Your task to perform on an android device: open a new tab in the chrome app Image 0: 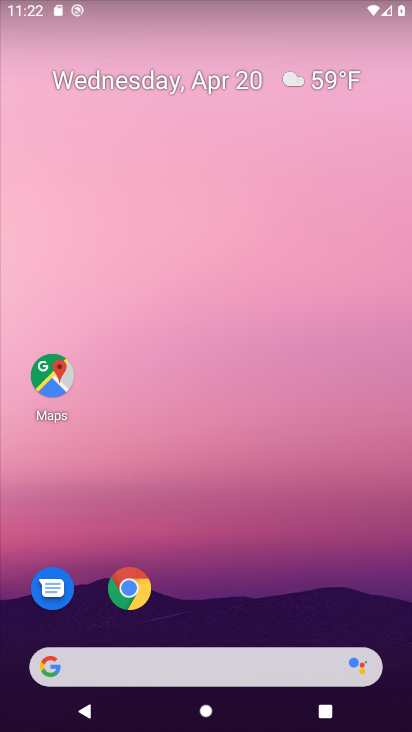
Step 0: click (132, 583)
Your task to perform on an android device: open a new tab in the chrome app Image 1: 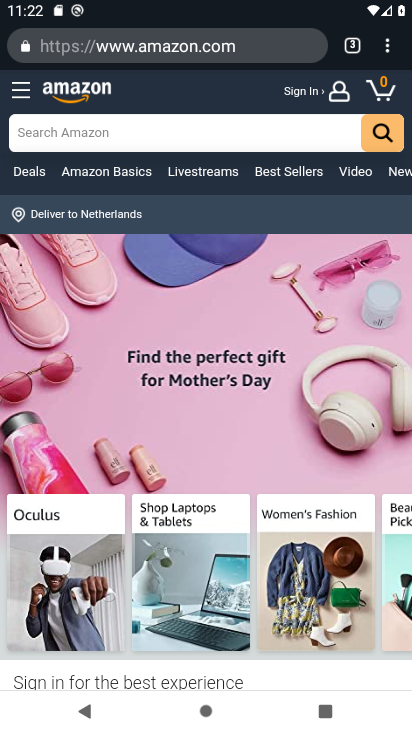
Step 1: click (387, 51)
Your task to perform on an android device: open a new tab in the chrome app Image 2: 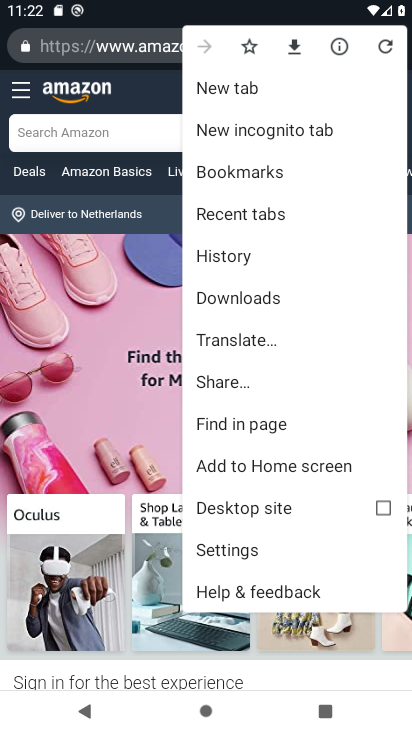
Step 2: click (220, 88)
Your task to perform on an android device: open a new tab in the chrome app Image 3: 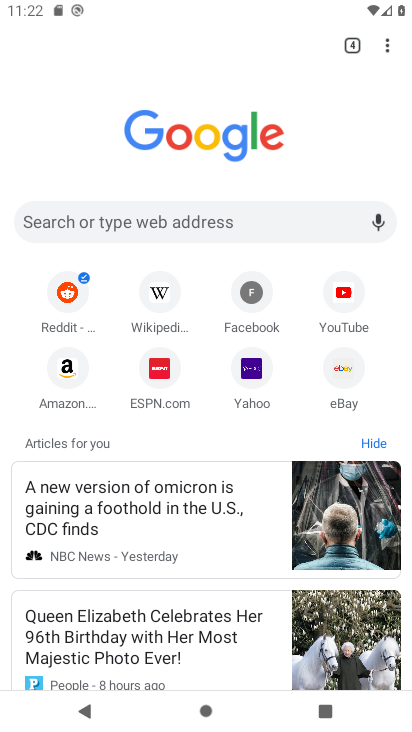
Step 3: task complete